Your task to perform on an android device: Go to Amazon Image 0: 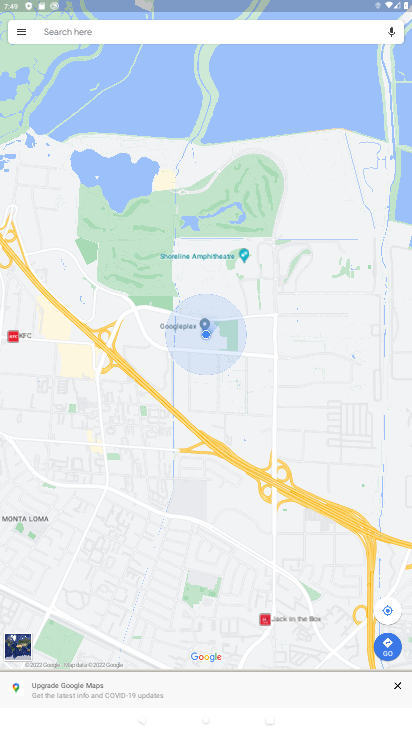
Step 0: press home button
Your task to perform on an android device: Go to Amazon Image 1: 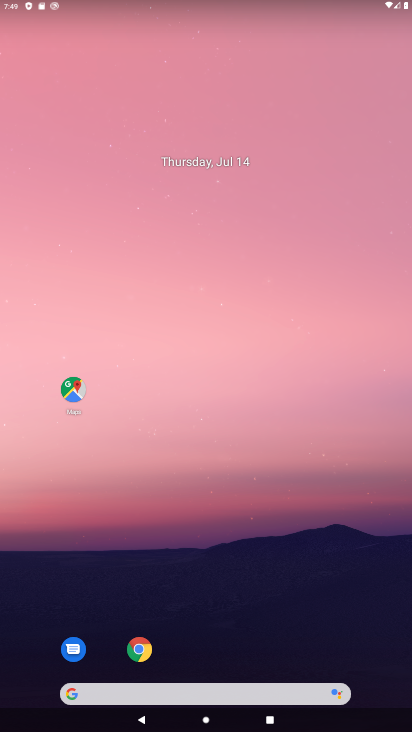
Step 1: drag from (182, 688) to (137, 38)
Your task to perform on an android device: Go to Amazon Image 2: 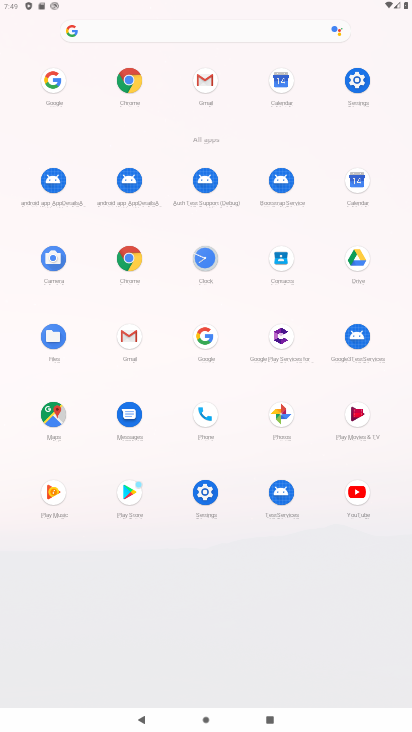
Step 2: click (142, 82)
Your task to perform on an android device: Go to Amazon Image 3: 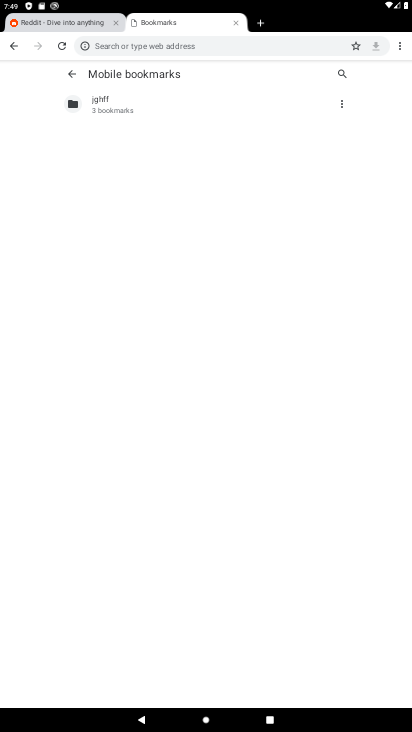
Step 3: click (251, 26)
Your task to perform on an android device: Go to Amazon Image 4: 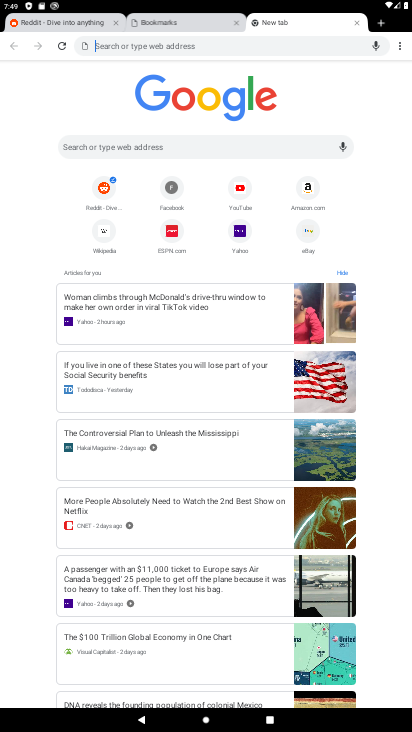
Step 4: click (303, 184)
Your task to perform on an android device: Go to Amazon Image 5: 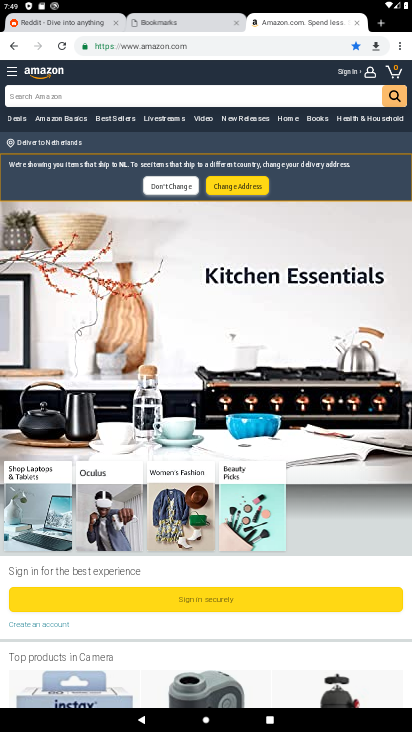
Step 5: task complete